Your task to perform on an android device: toggle sleep mode Image 0: 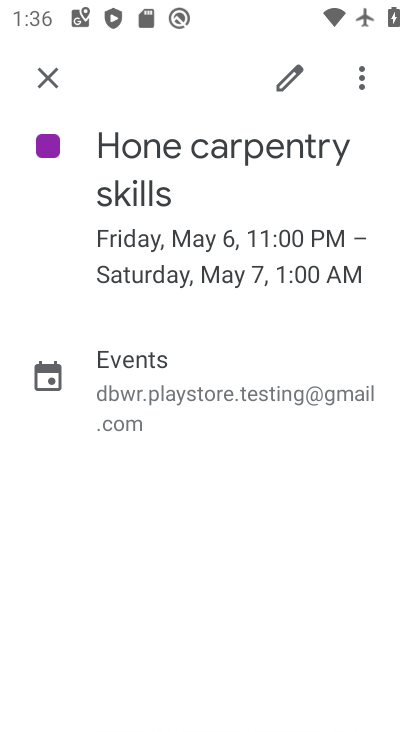
Step 0: press home button
Your task to perform on an android device: toggle sleep mode Image 1: 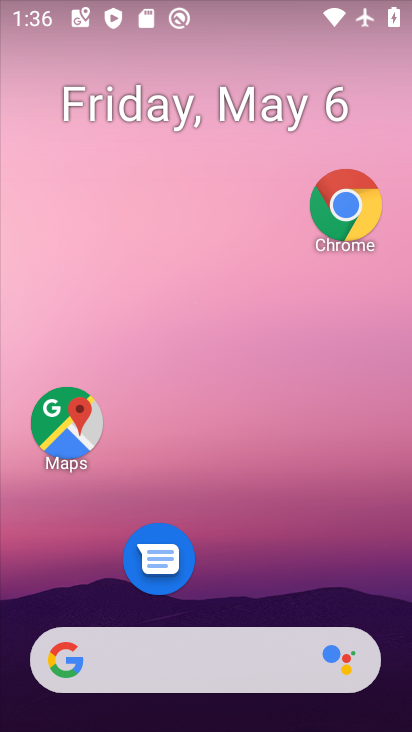
Step 1: drag from (233, 624) to (306, 65)
Your task to perform on an android device: toggle sleep mode Image 2: 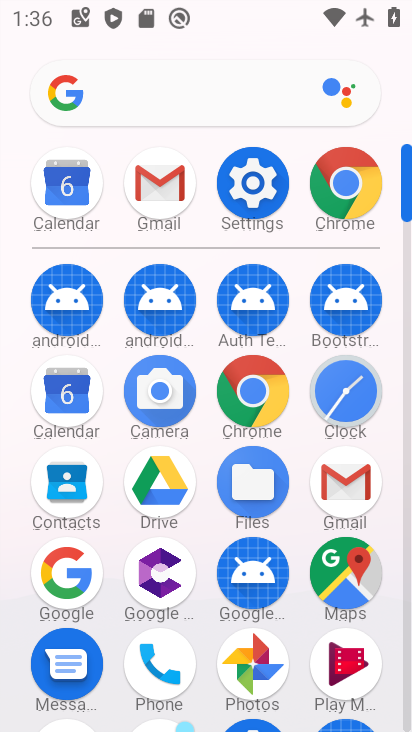
Step 2: click (239, 186)
Your task to perform on an android device: toggle sleep mode Image 3: 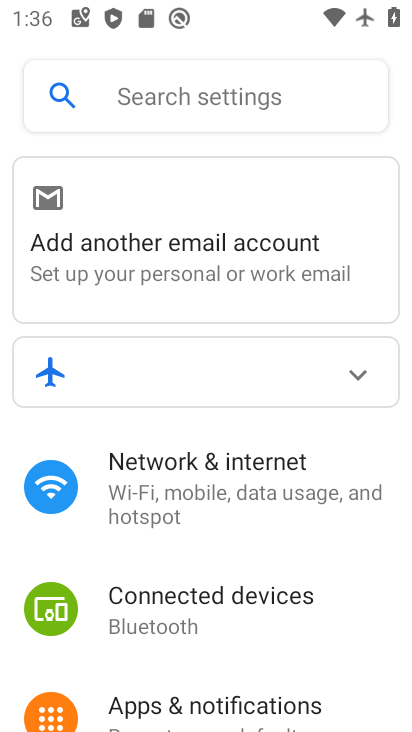
Step 3: drag from (226, 560) to (367, 169)
Your task to perform on an android device: toggle sleep mode Image 4: 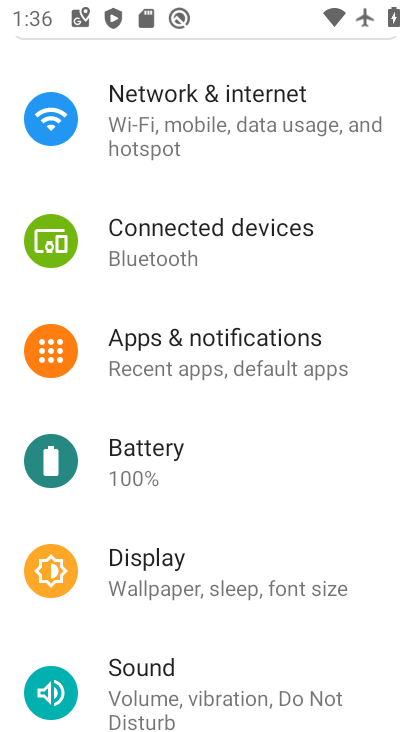
Step 4: drag from (231, 496) to (326, 237)
Your task to perform on an android device: toggle sleep mode Image 5: 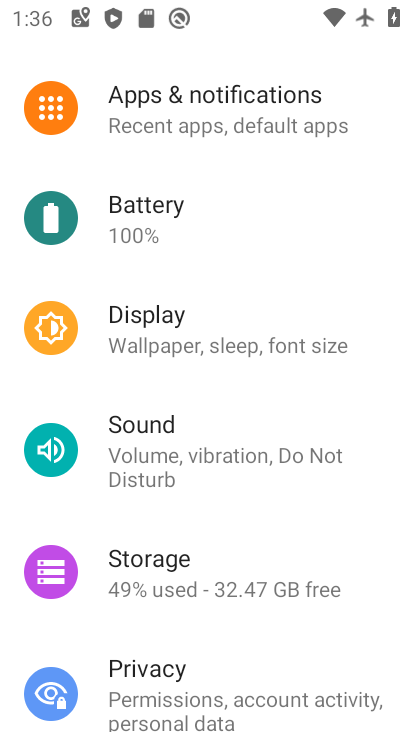
Step 5: click (238, 342)
Your task to perform on an android device: toggle sleep mode Image 6: 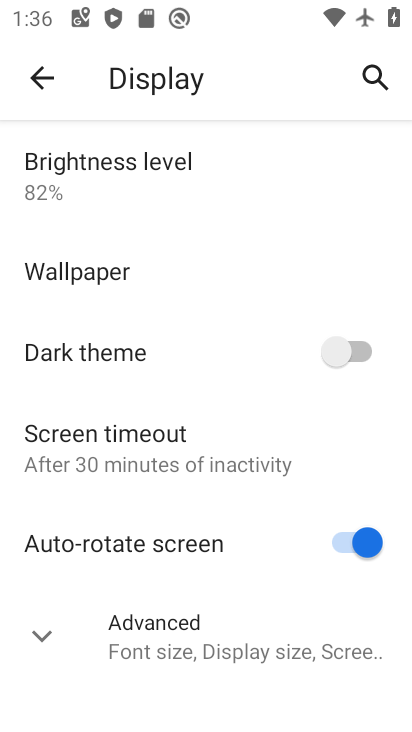
Step 6: task complete